Your task to perform on an android device: Go to notification settings Image 0: 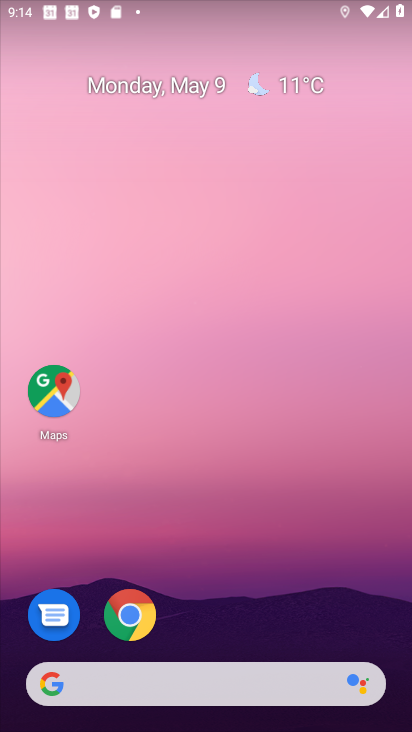
Step 0: drag from (237, 575) to (222, 20)
Your task to perform on an android device: Go to notification settings Image 1: 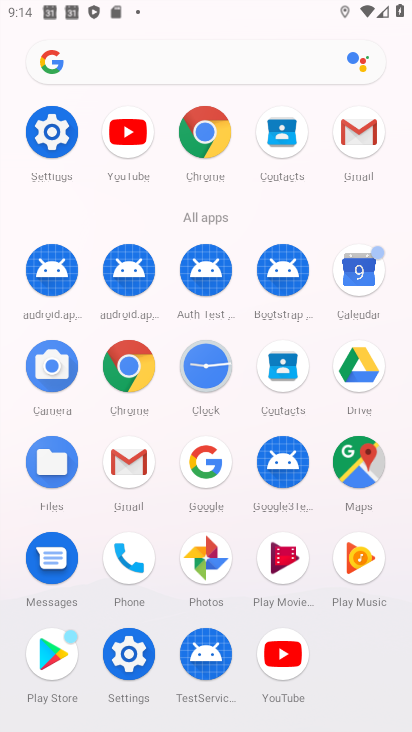
Step 1: click (128, 650)
Your task to perform on an android device: Go to notification settings Image 2: 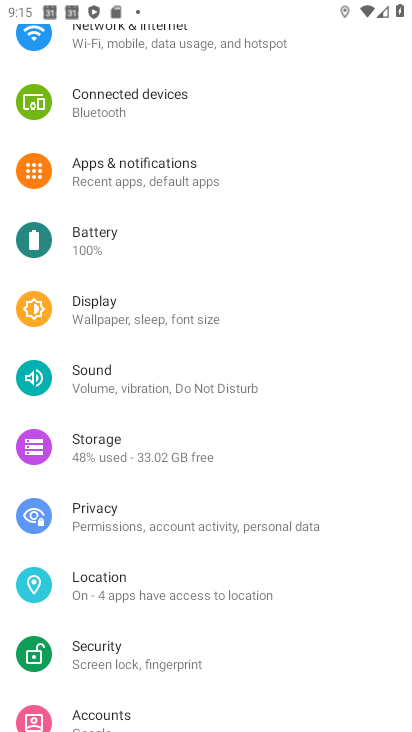
Step 2: click (172, 176)
Your task to perform on an android device: Go to notification settings Image 3: 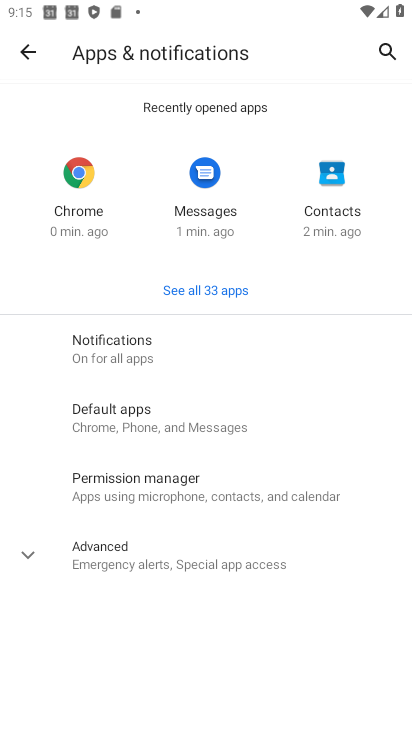
Step 3: click (166, 352)
Your task to perform on an android device: Go to notification settings Image 4: 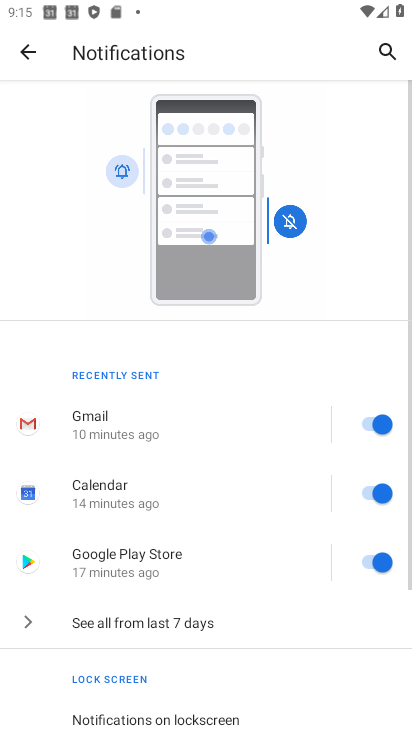
Step 4: drag from (232, 584) to (227, 82)
Your task to perform on an android device: Go to notification settings Image 5: 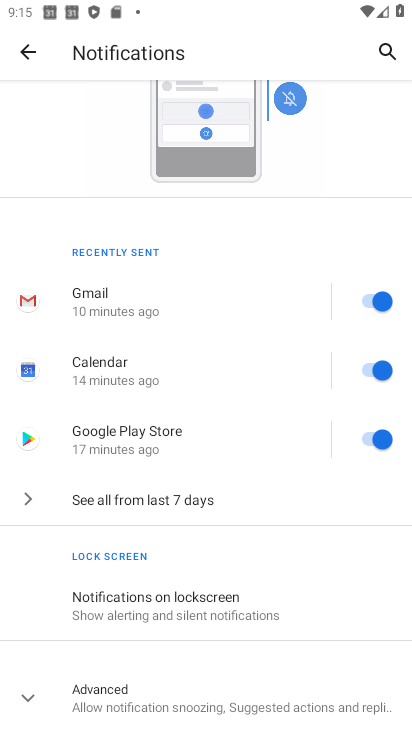
Step 5: drag from (199, 612) to (203, 325)
Your task to perform on an android device: Go to notification settings Image 6: 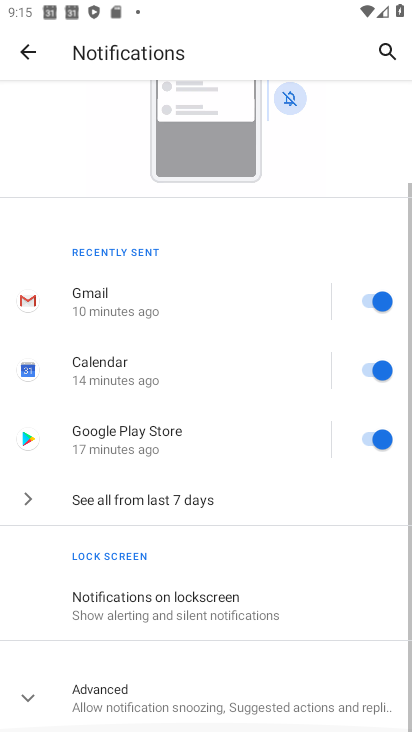
Step 6: click (28, 701)
Your task to perform on an android device: Go to notification settings Image 7: 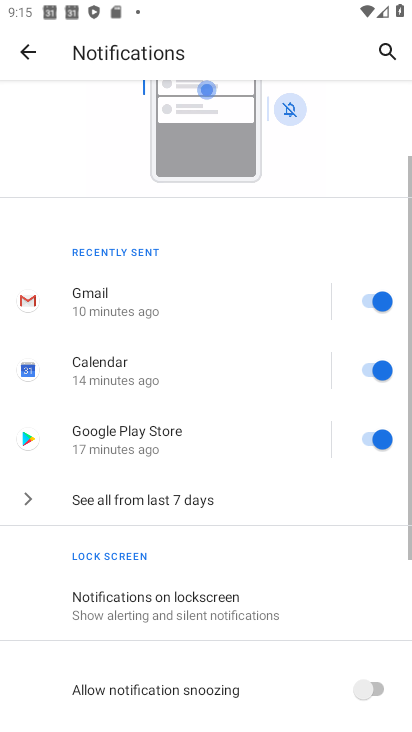
Step 7: task complete